Your task to perform on an android device: Open the calendar and show me this week's events? Image 0: 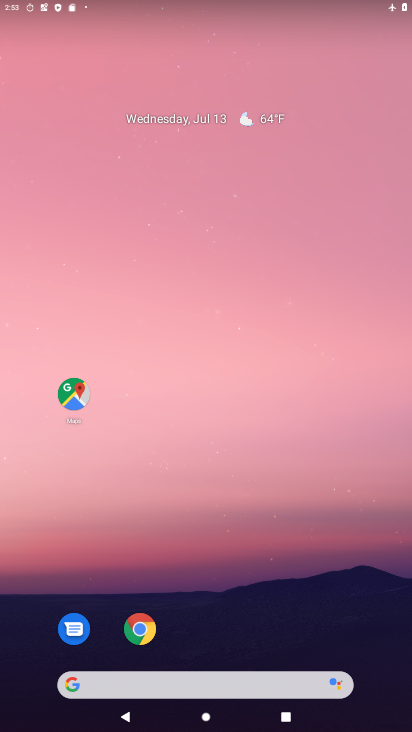
Step 0: drag from (279, 694) to (341, 30)
Your task to perform on an android device: Open the calendar and show me this week's events? Image 1: 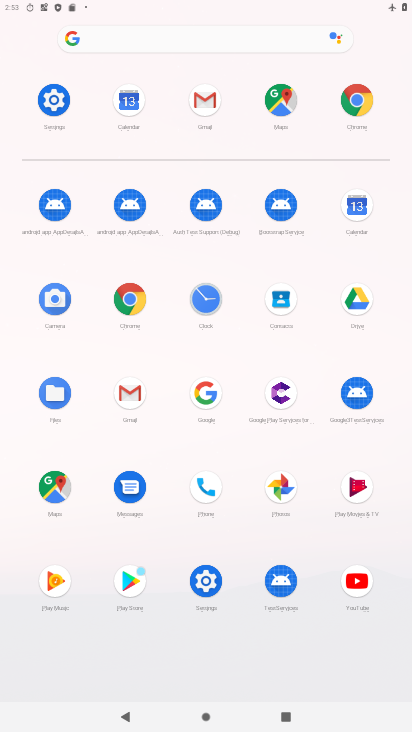
Step 1: click (361, 202)
Your task to perform on an android device: Open the calendar and show me this week's events? Image 2: 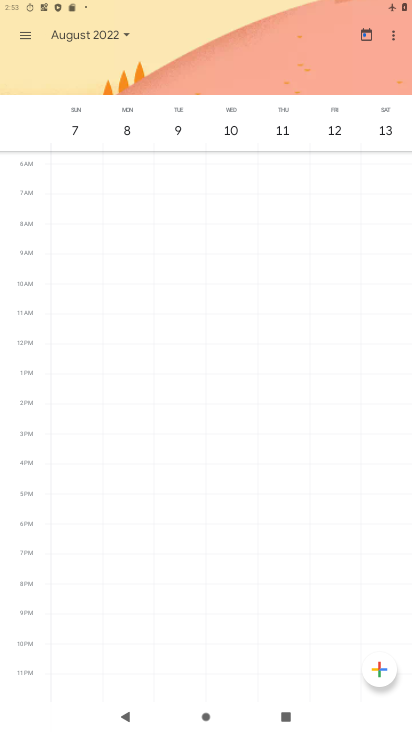
Step 2: click (119, 30)
Your task to perform on an android device: Open the calendar and show me this week's events? Image 3: 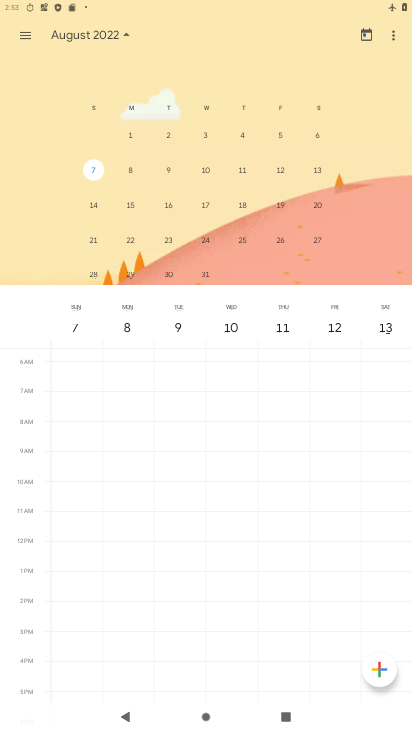
Step 3: drag from (36, 203) to (366, 207)
Your task to perform on an android device: Open the calendar and show me this week's events? Image 4: 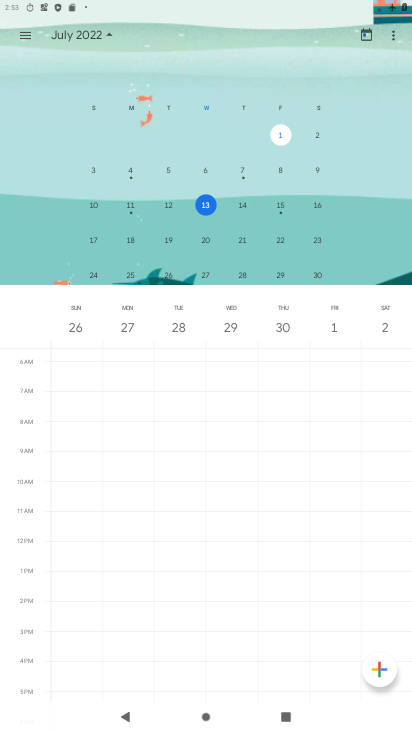
Step 4: click (244, 201)
Your task to perform on an android device: Open the calendar and show me this week's events? Image 5: 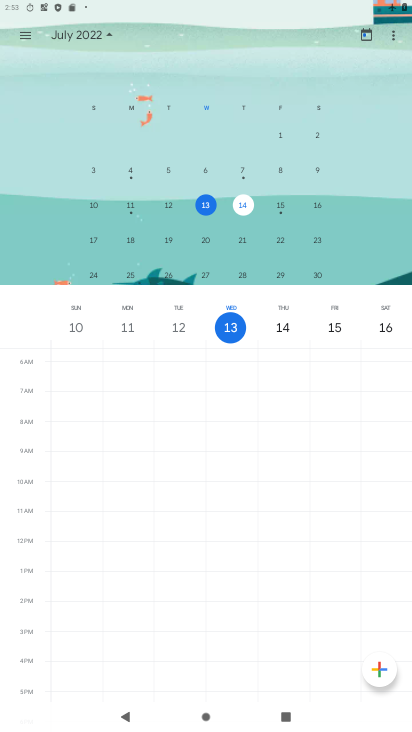
Step 5: task complete